Your task to perform on an android device: add a contact in the contacts app Image 0: 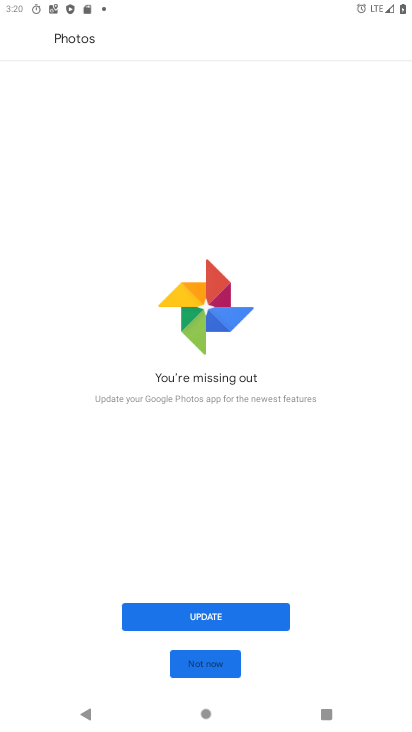
Step 0: press home button
Your task to perform on an android device: add a contact in the contacts app Image 1: 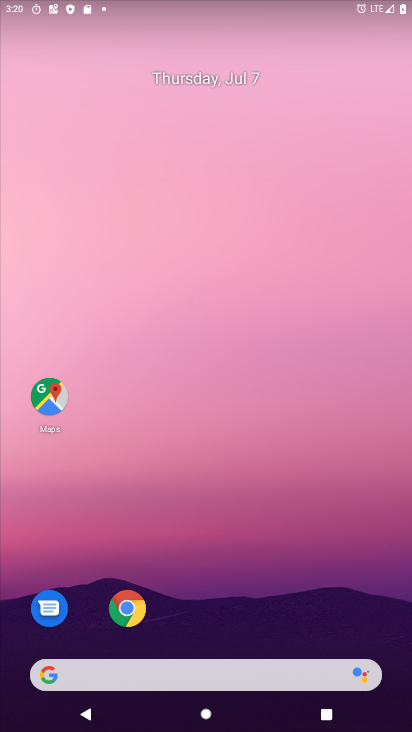
Step 1: drag from (246, 725) to (245, 160)
Your task to perform on an android device: add a contact in the contacts app Image 2: 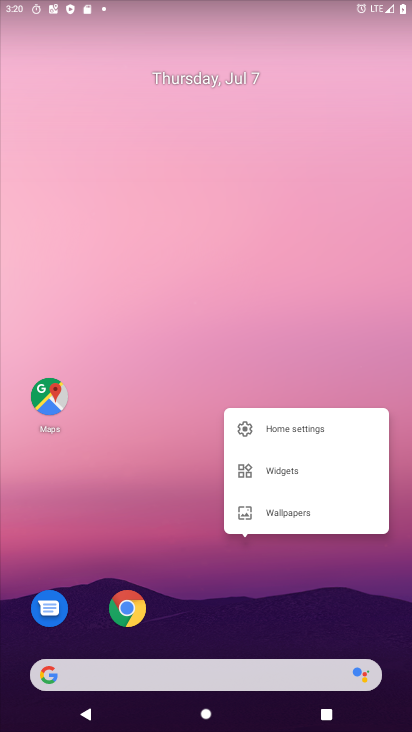
Step 2: click (258, 279)
Your task to perform on an android device: add a contact in the contacts app Image 3: 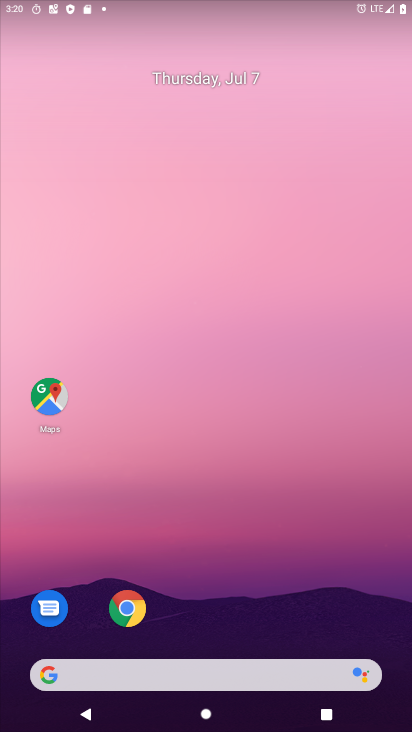
Step 3: drag from (237, 722) to (228, 670)
Your task to perform on an android device: add a contact in the contacts app Image 4: 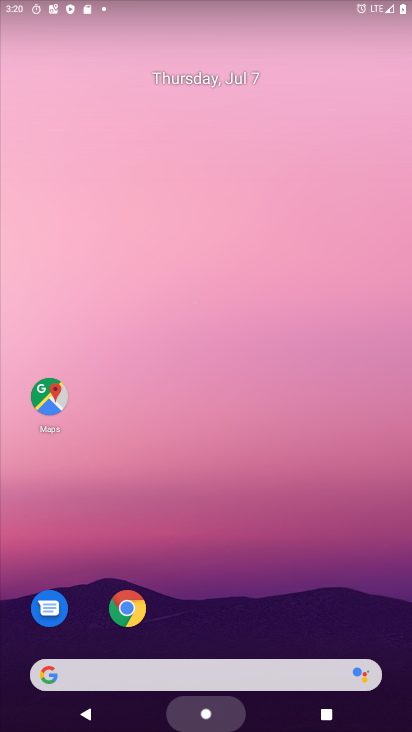
Step 4: click (218, 512)
Your task to perform on an android device: add a contact in the contacts app Image 5: 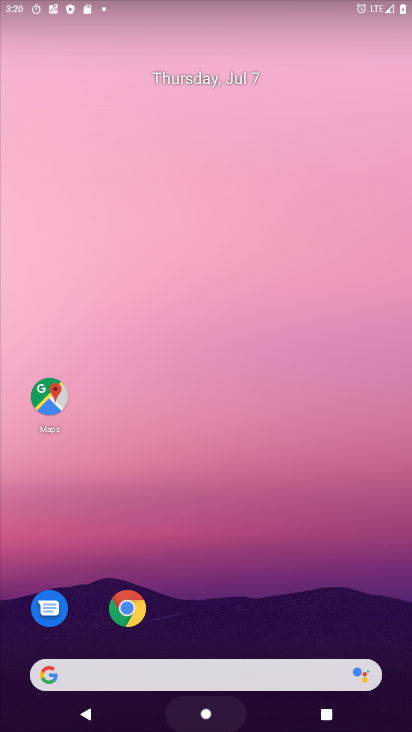
Step 5: click (217, 118)
Your task to perform on an android device: add a contact in the contacts app Image 6: 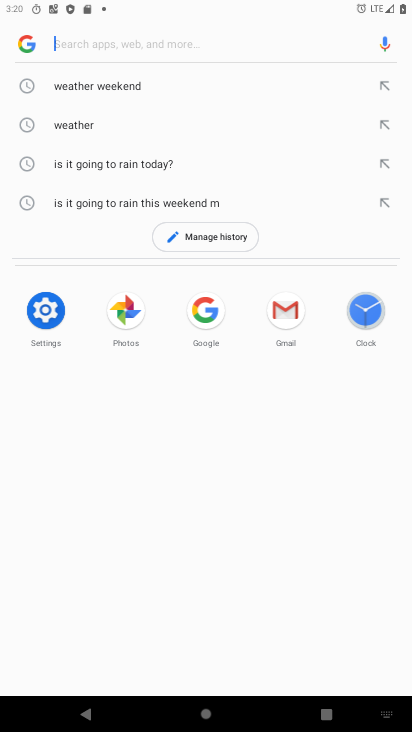
Step 6: press home button
Your task to perform on an android device: add a contact in the contacts app Image 7: 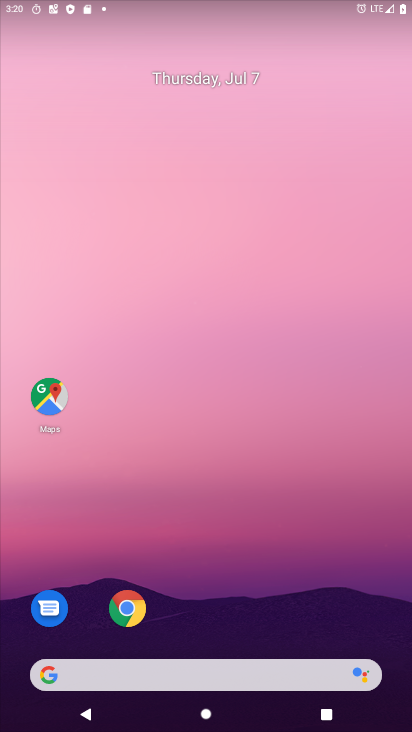
Step 7: drag from (253, 720) to (253, 627)
Your task to perform on an android device: add a contact in the contacts app Image 8: 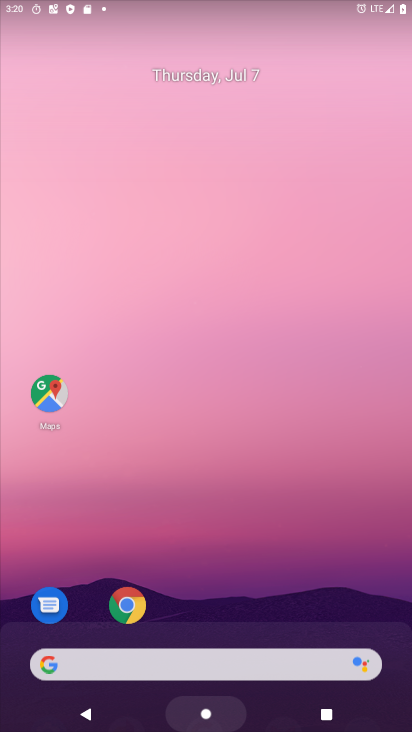
Step 8: click (253, 88)
Your task to perform on an android device: add a contact in the contacts app Image 9: 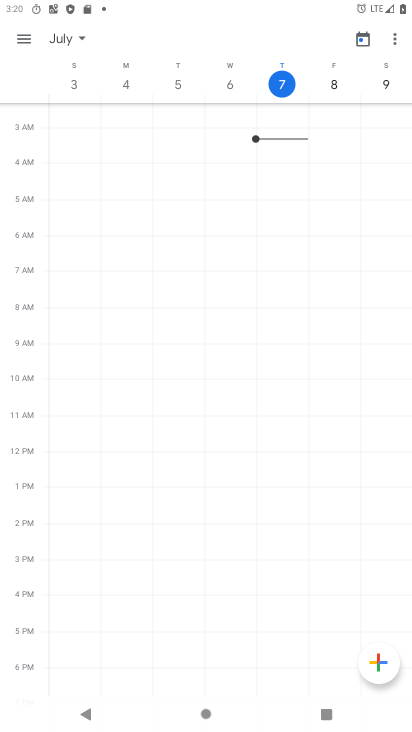
Step 9: press home button
Your task to perform on an android device: add a contact in the contacts app Image 10: 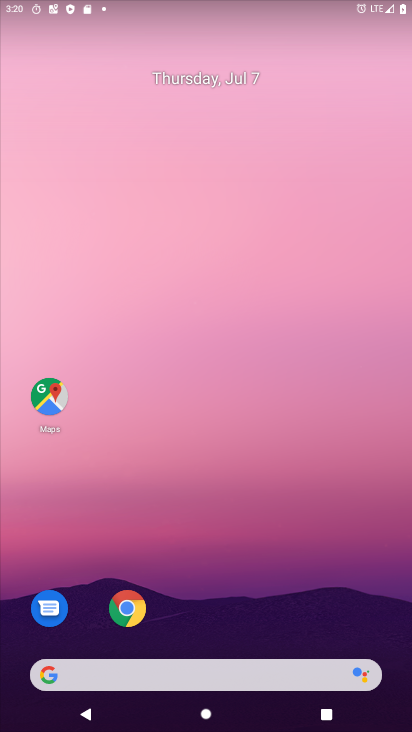
Step 10: drag from (261, 728) to (229, 110)
Your task to perform on an android device: add a contact in the contacts app Image 11: 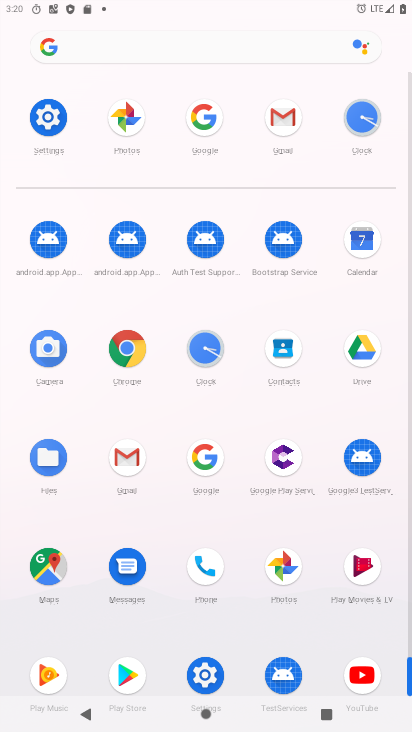
Step 11: click (277, 331)
Your task to perform on an android device: add a contact in the contacts app Image 12: 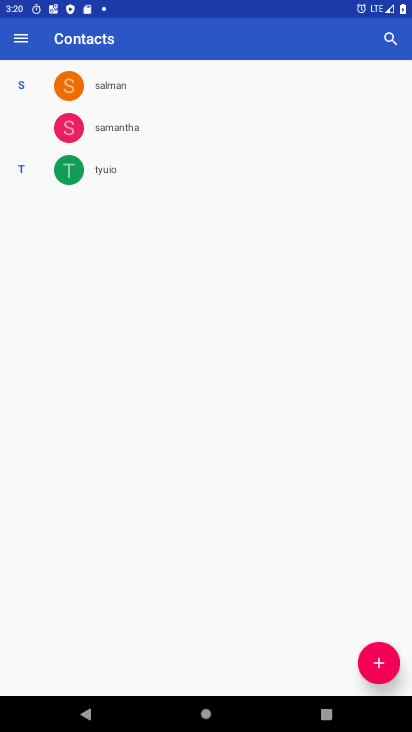
Step 12: click (379, 658)
Your task to perform on an android device: add a contact in the contacts app Image 13: 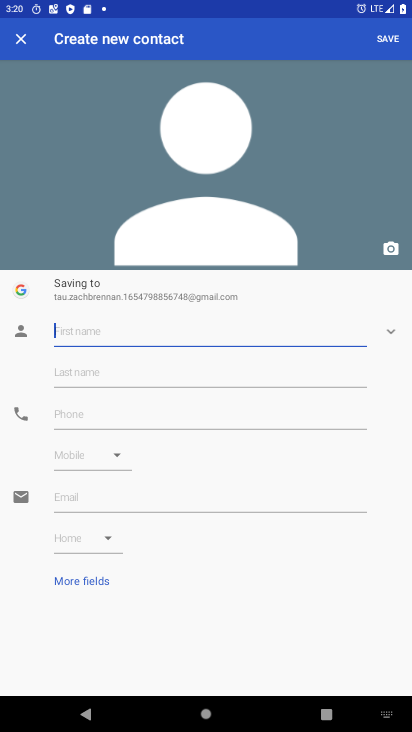
Step 13: type "noo"
Your task to perform on an android device: add a contact in the contacts app Image 14: 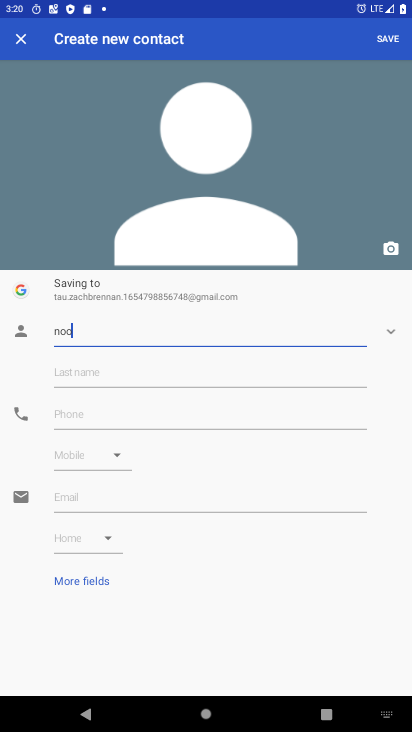
Step 14: click (118, 410)
Your task to perform on an android device: add a contact in the contacts app Image 15: 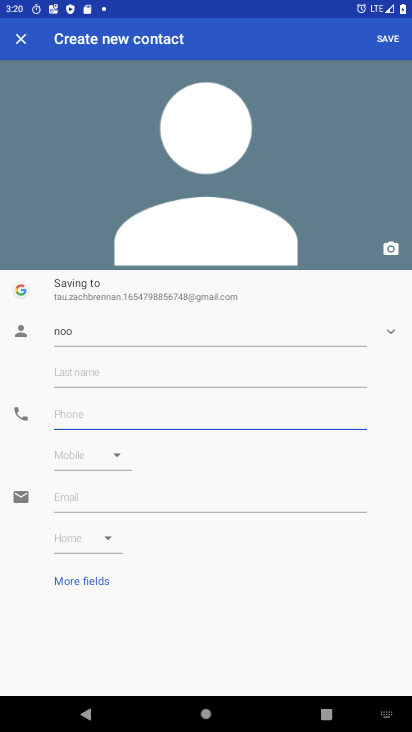
Step 15: type "6767676"
Your task to perform on an android device: add a contact in the contacts app Image 16: 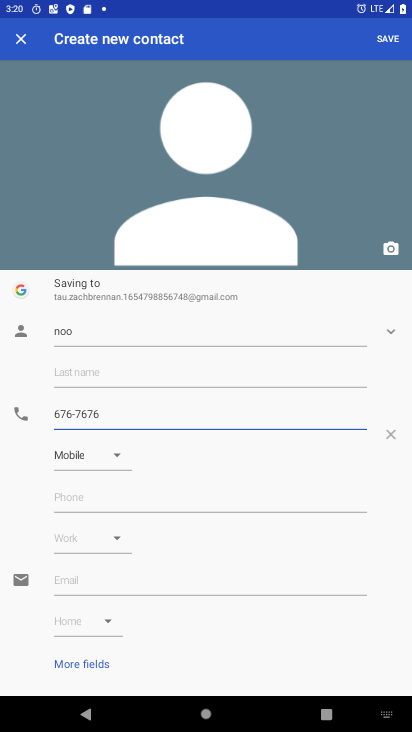
Step 16: click (387, 33)
Your task to perform on an android device: add a contact in the contacts app Image 17: 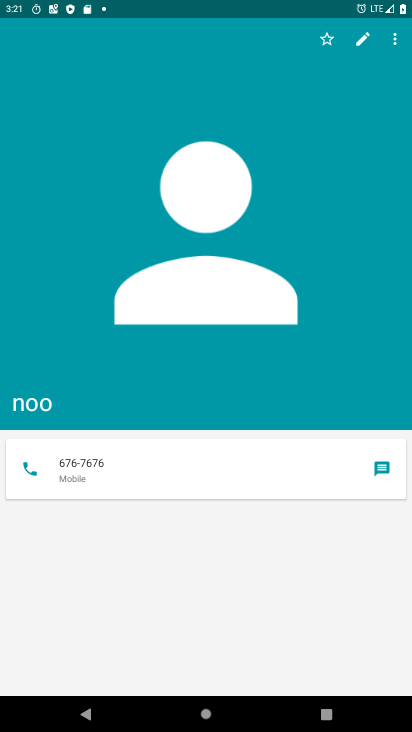
Step 17: task complete